Your task to perform on an android device: refresh tabs in the chrome app Image 0: 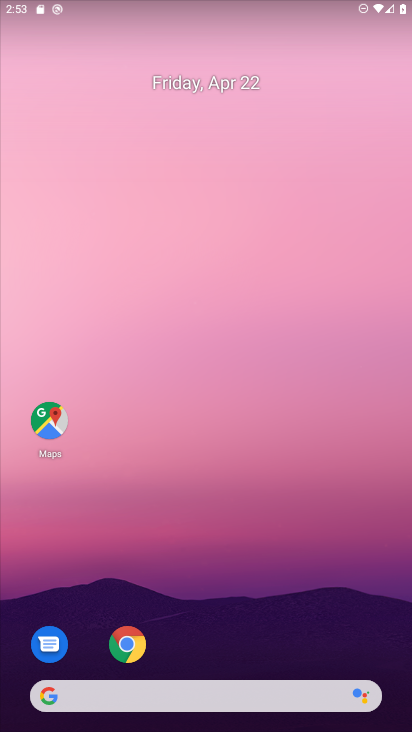
Step 0: drag from (298, 463) to (312, 165)
Your task to perform on an android device: refresh tabs in the chrome app Image 1: 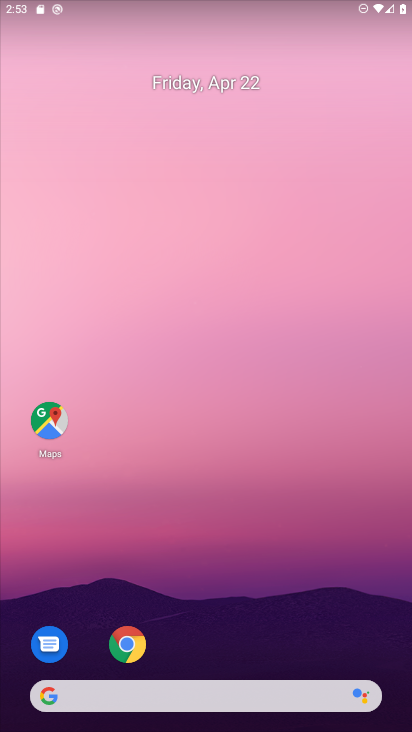
Step 1: drag from (284, 554) to (314, 128)
Your task to perform on an android device: refresh tabs in the chrome app Image 2: 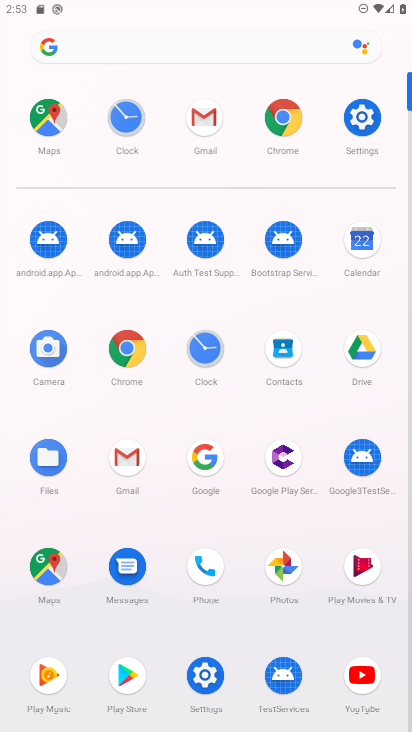
Step 2: click (118, 342)
Your task to perform on an android device: refresh tabs in the chrome app Image 3: 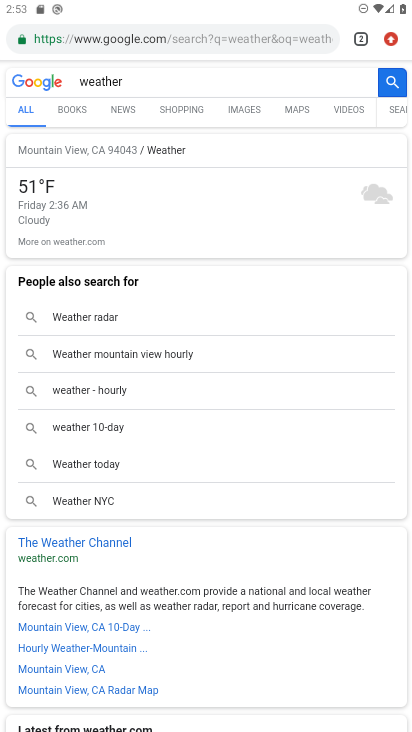
Step 3: click (403, 34)
Your task to perform on an android device: refresh tabs in the chrome app Image 4: 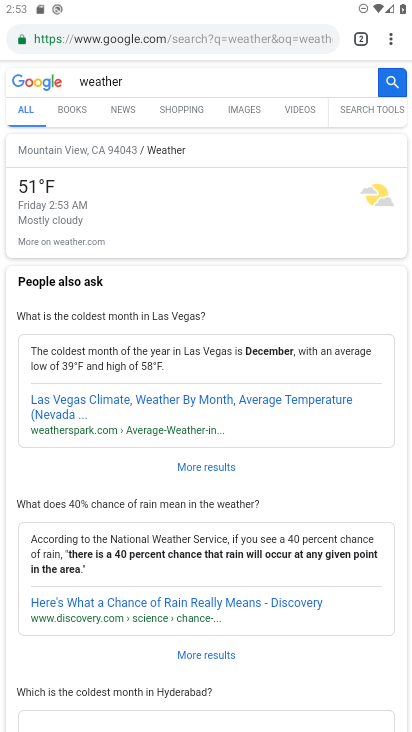
Step 4: task complete